Your task to perform on an android device: turn off wifi Image 0: 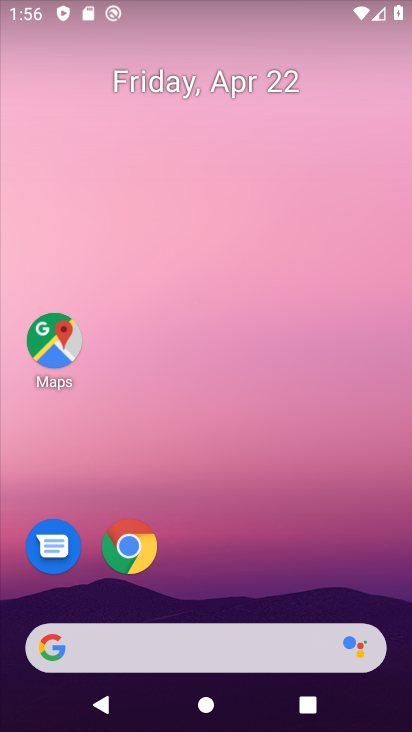
Step 0: drag from (262, 449) to (275, 365)
Your task to perform on an android device: turn off wifi Image 1: 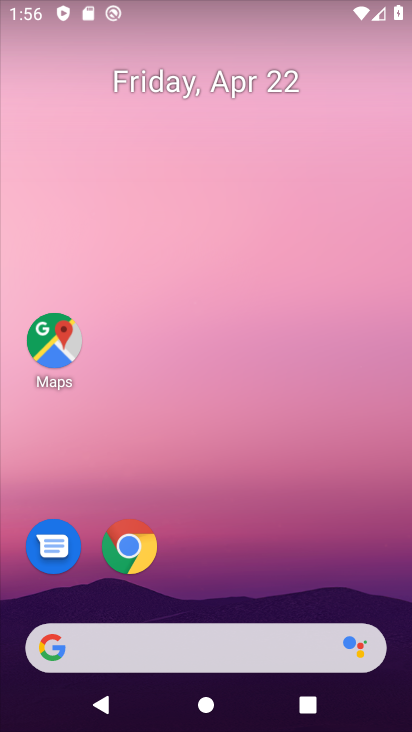
Step 1: drag from (300, 219) to (317, 108)
Your task to perform on an android device: turn off wifi Image 2: 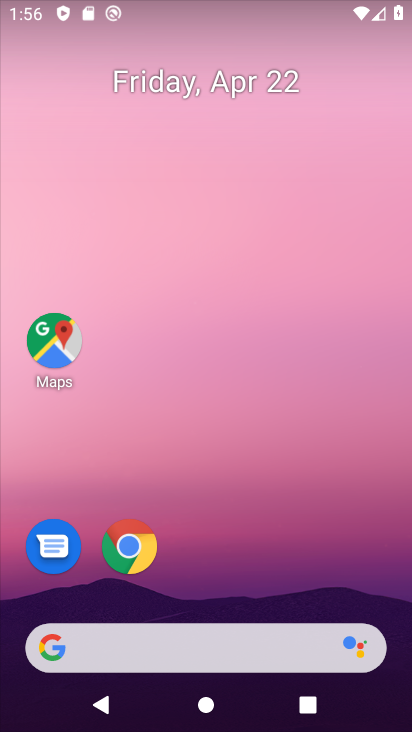
Step 2: drag from (260, 524) to (320, 101)
Your task to perform on an android device: turn off wifi Image 3: 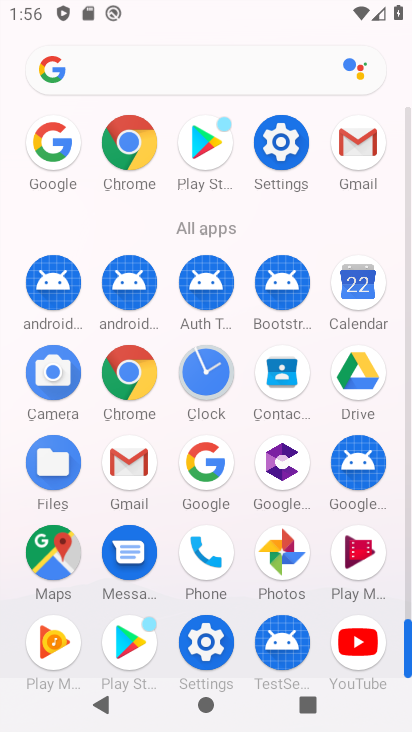
Step 3: click (281, 148)
Your task to perform on an android device: turn off wifi Image 4: 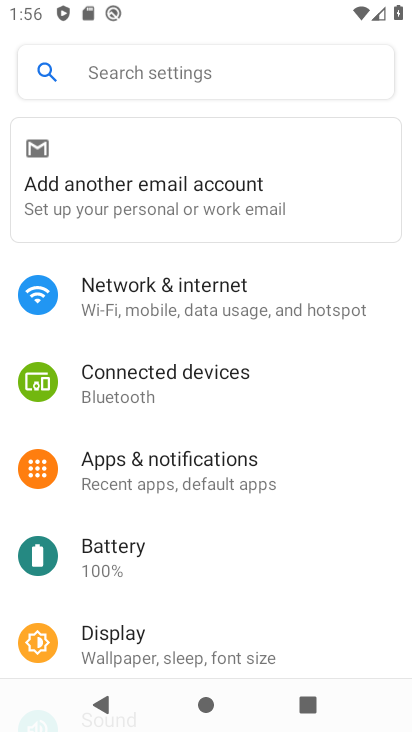
Step 4: click (269, 318)
Your task to perform on an android device: turn off wifi Image 5: 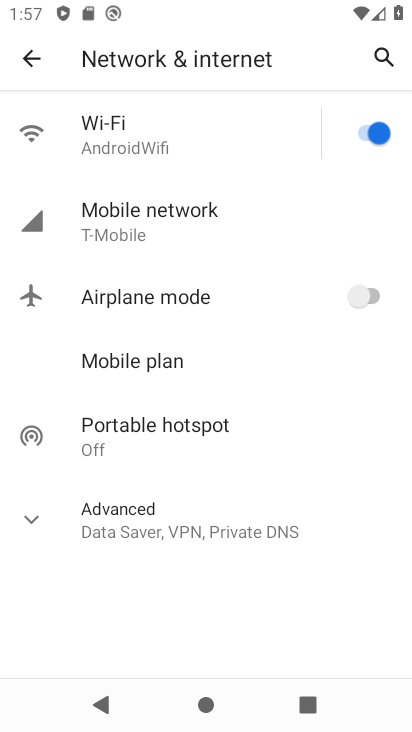
Step 5: click (374, 120)
Your task to perform on an android device: turn off wifi Image 6: 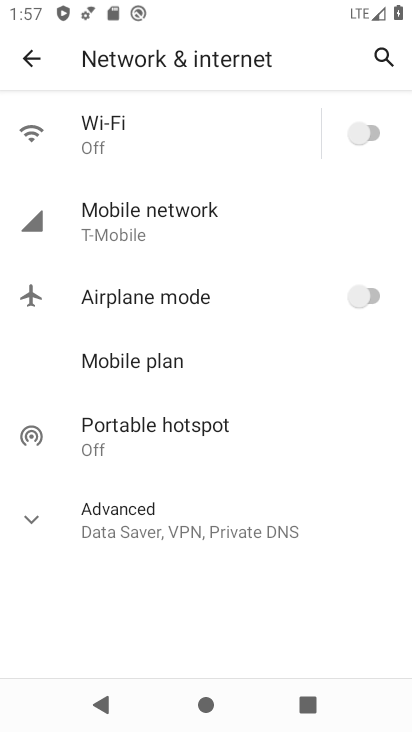
Step 6: task complete